Your task to perform on an android device: Do I have any events this weekend? Image 0: 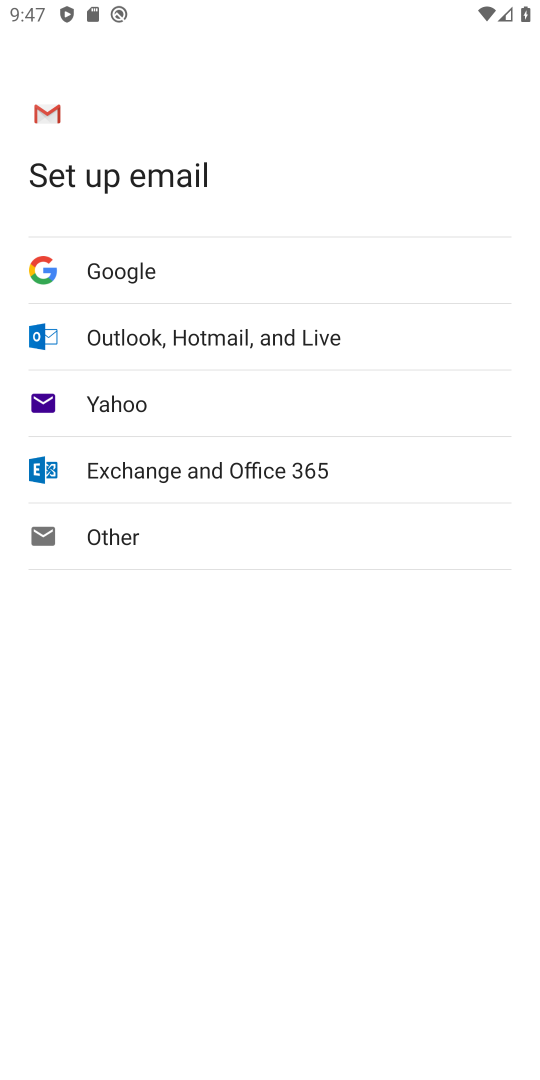
Step 0: press home button
Your task to perform on an android device: Do I have any events this weekend? Image 1: 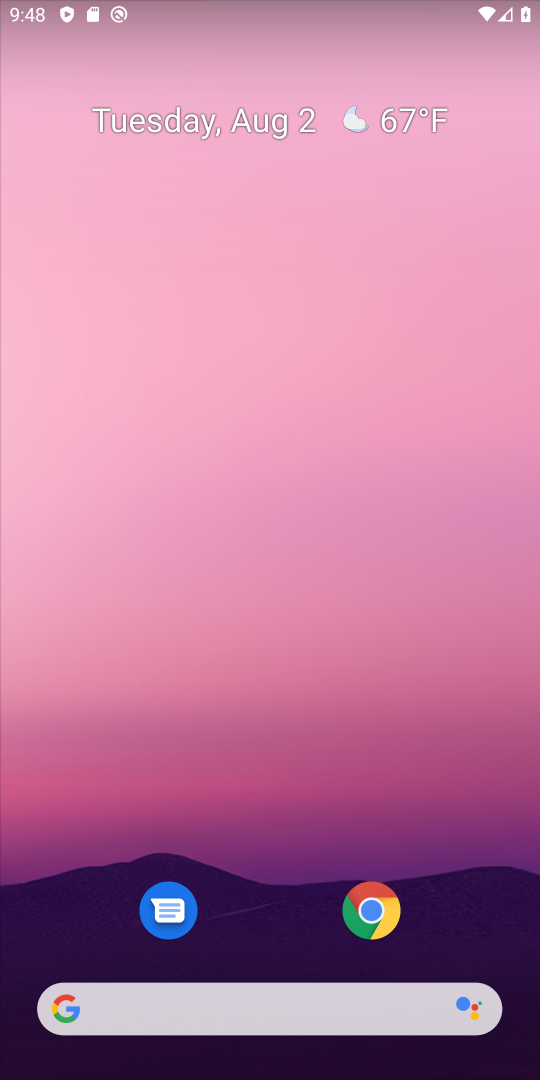
Step 1: drag from (276, 811) to (298, 251)
Your task to perform on an android device: Do I have any events this weekend? Image 2: 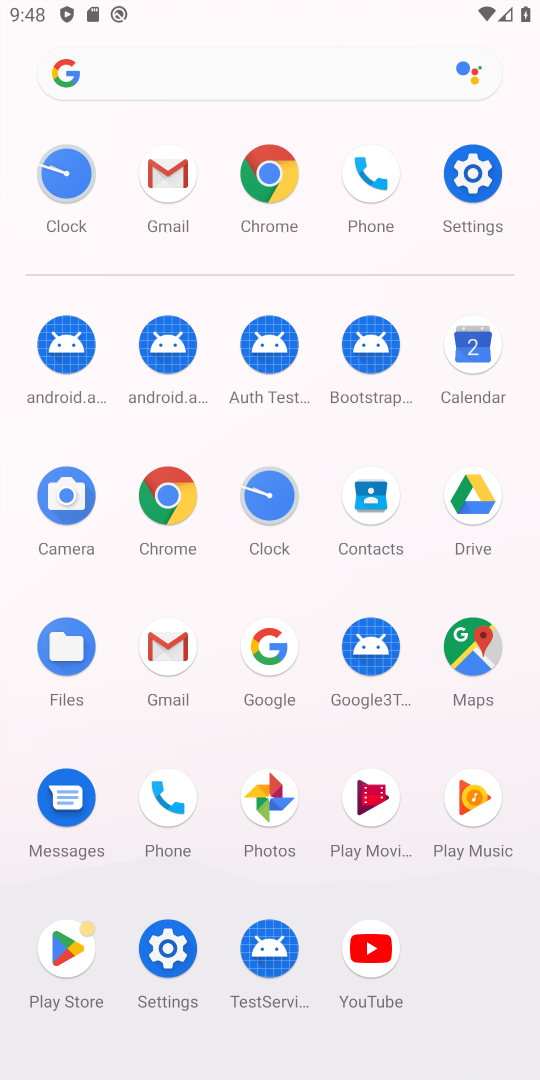
Step 2: click (158, 478)
Your task to perform on an android device: Do I have any events this weekend? Image 3: 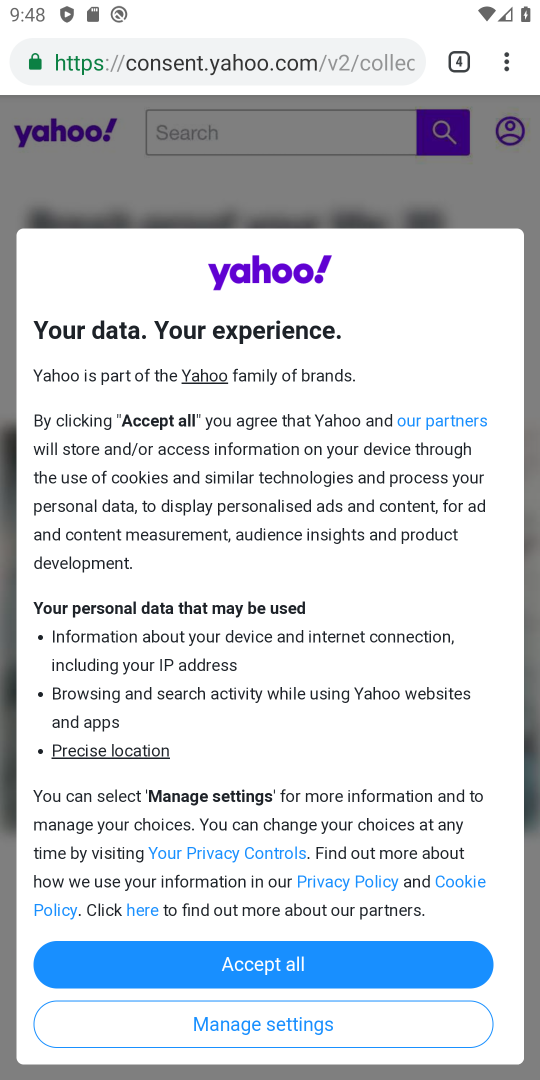
Step 3: click (506, 65)
Your task to perform on an android device: Do I have any events this weekend? Image 4: 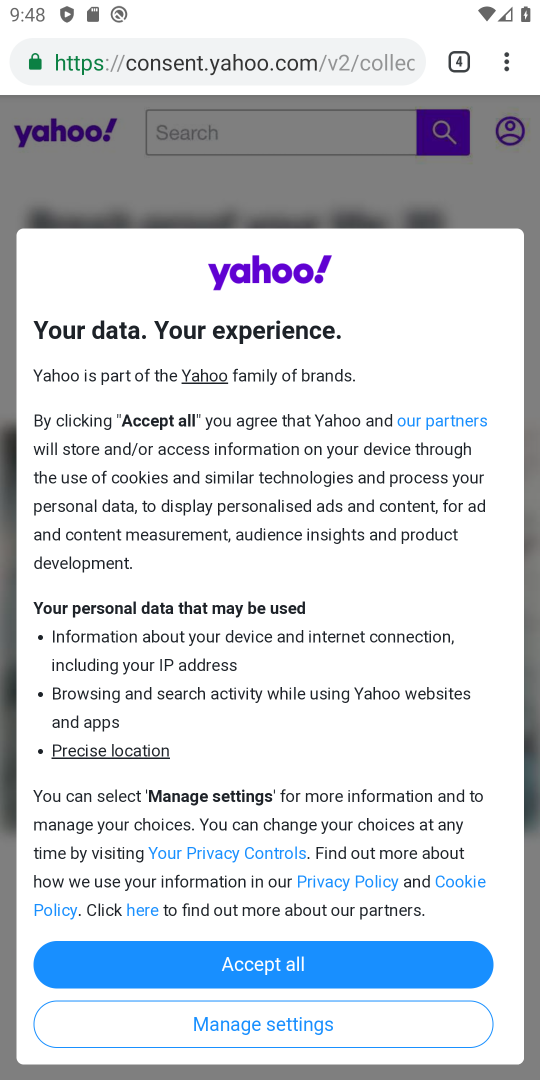
Step 4: click (490, 55)
Your task to perform on an android device: Do I have any events this weekend? Image 5: 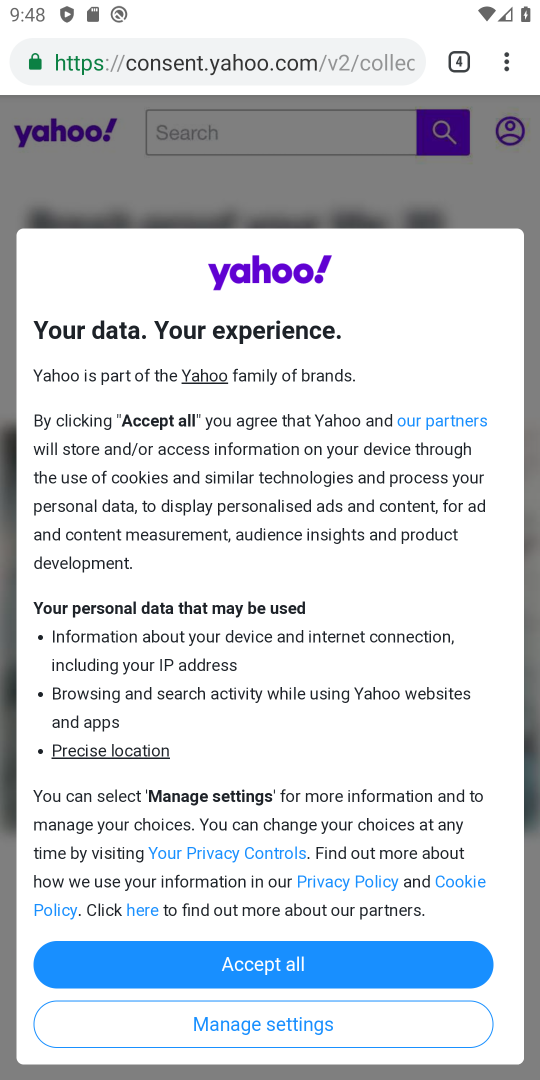
Step 5: click (521, 65)
Your task to perform on an android device: Do I have any events this weekend? Image 6: 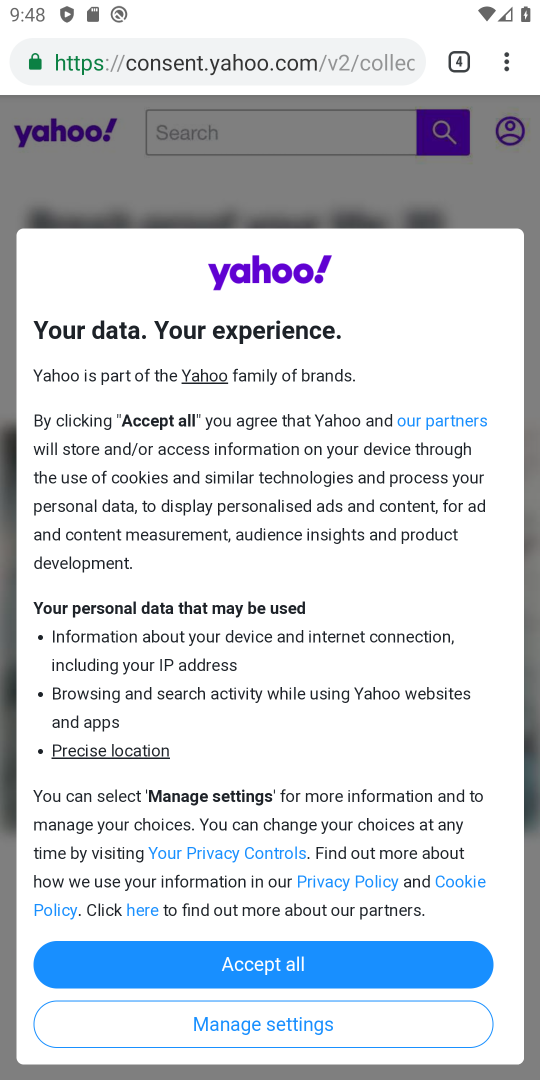
Step 6: click (504, 43)
Your task to perform on an android device: Do I have any events this weekend? Image 7: 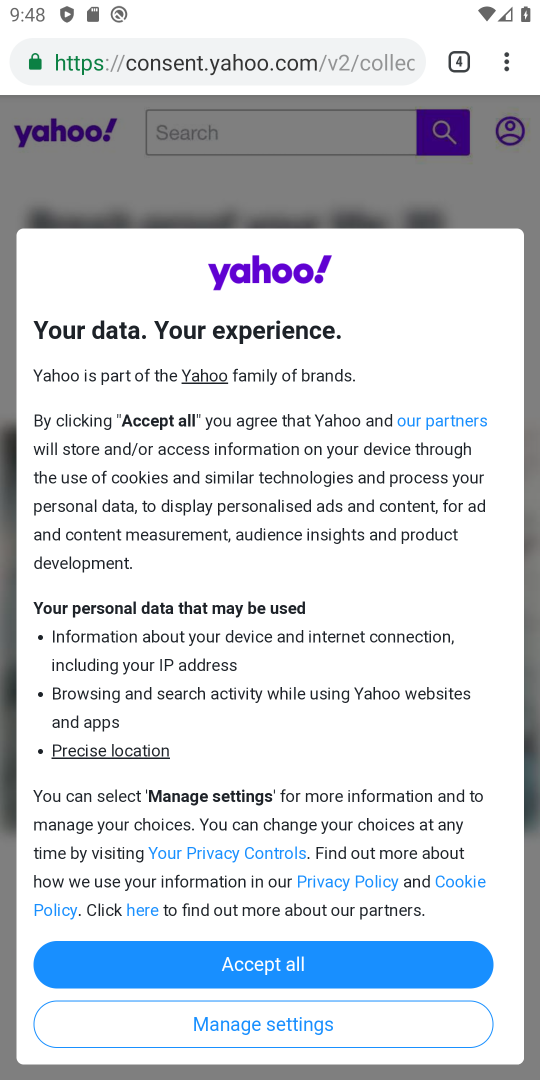
Step 7: click (511, 59)
Your task to perform on an android device: Do I have any events this weekend? Image 8: 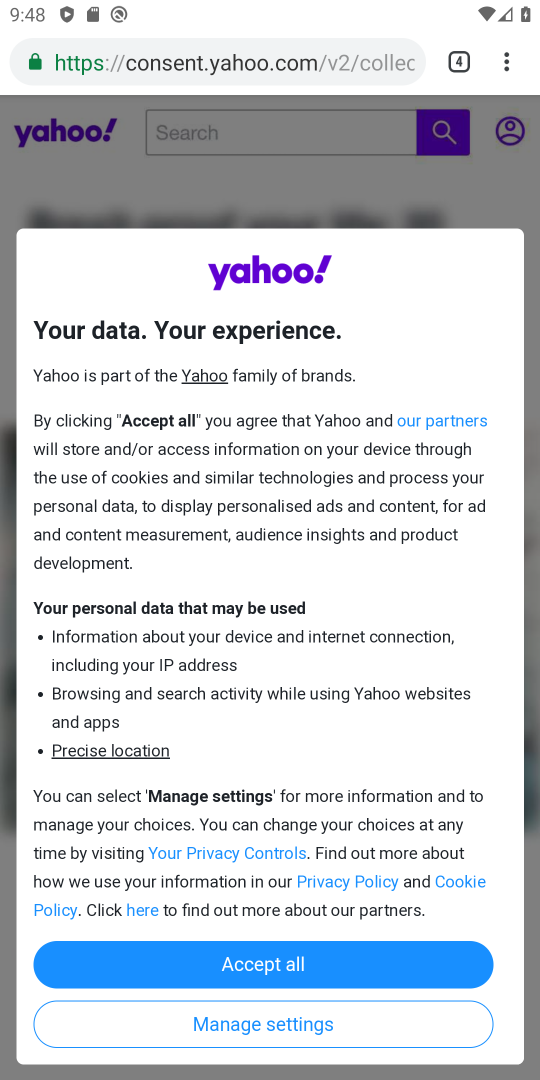
Step 8: click (493, 59)
Your task to perform on an android device: Do I have any events this weekend? Image 9: 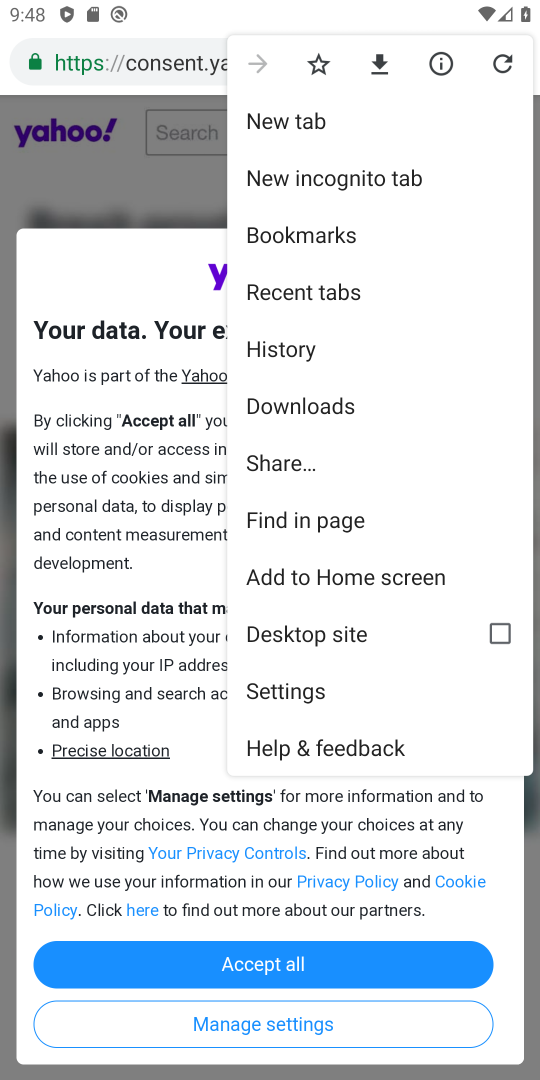
Step 9: click (297, 126)
Your task to perform on an android device: Do I have any events this weekend? Image 10: 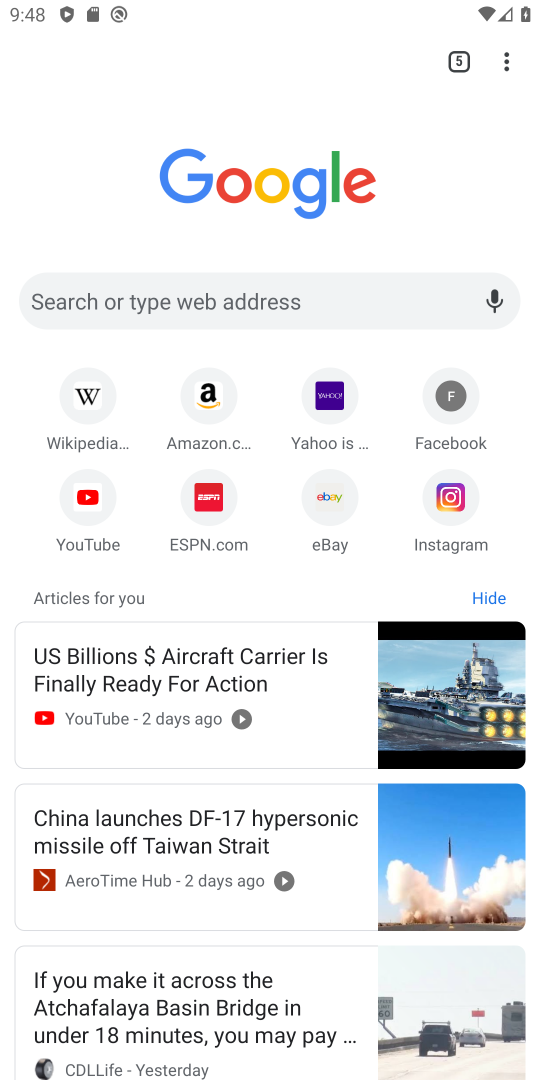
Step 10: click (333, 294)
Your task to perform on an android device: Do I have any events this weekend? Image 11: 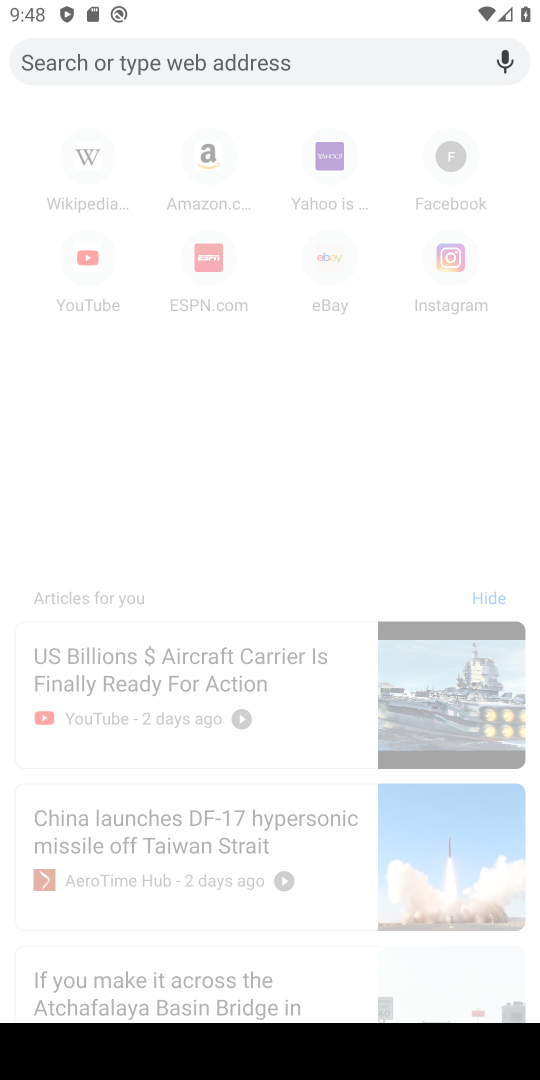
Step 11: type "Do I have any events this weekend? "
Your task to perform on an android device: Do I have any events this weekend? Image 12: 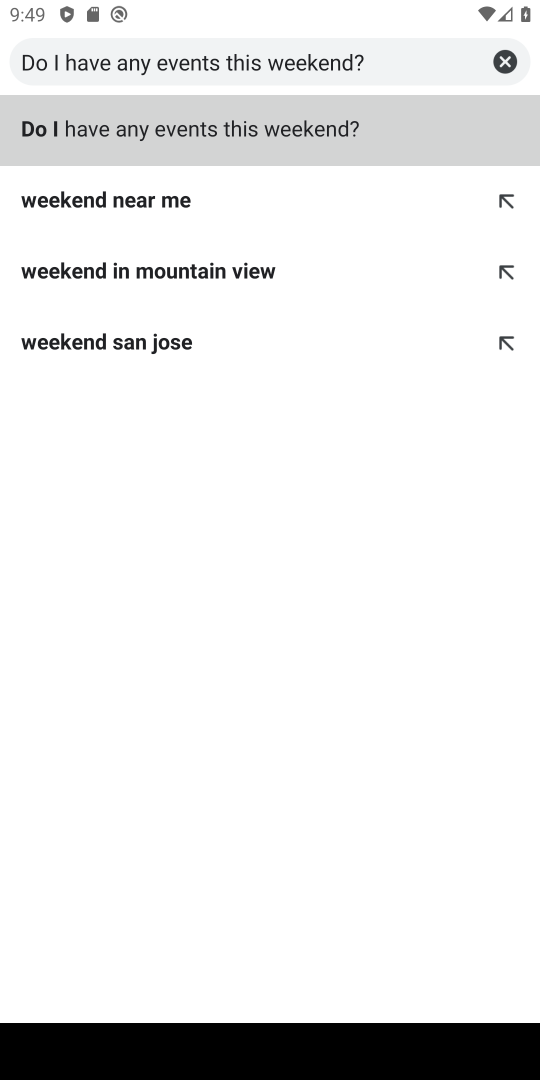
Step 12: click (227, 123)
Your task to perform on an android device: Do I have any events this weekend? Image 13: 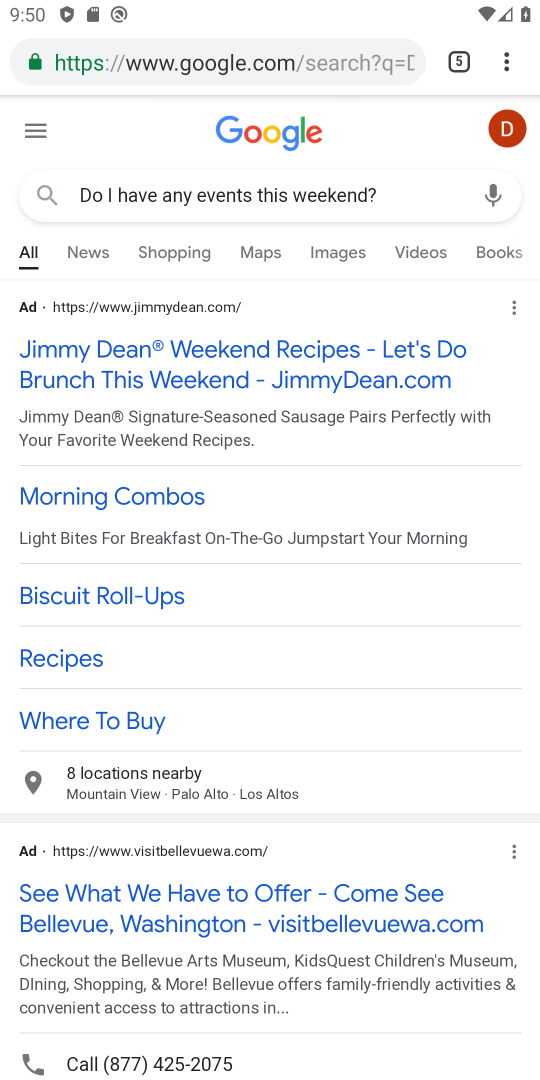
Step 13: task complete